Your task to perform on an android device: When is my next appointment? Image 0: 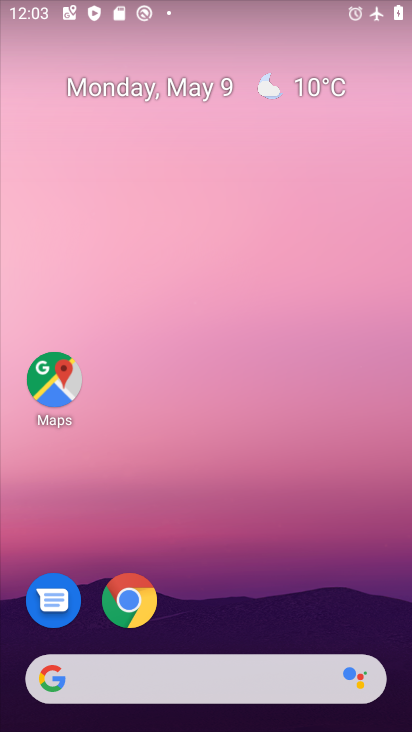
Step 0: drag from (200, 637) to (242, 158)
Your task to perform on an android device: When is my next appointment? Image 1: 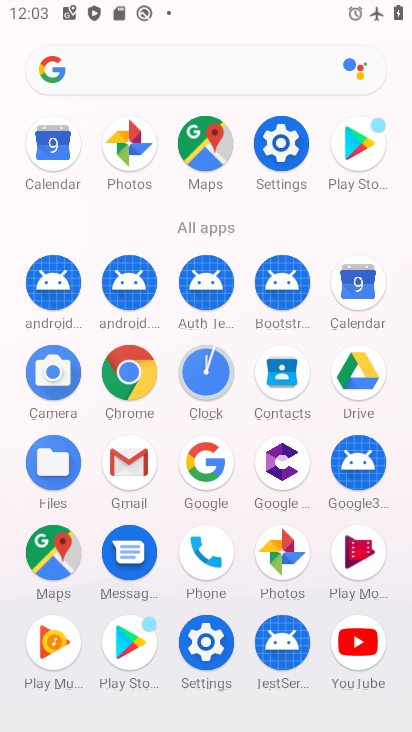
Step 1: click (356, 295)
Your task to perform on an android device: When is my next appointment? Image 2: 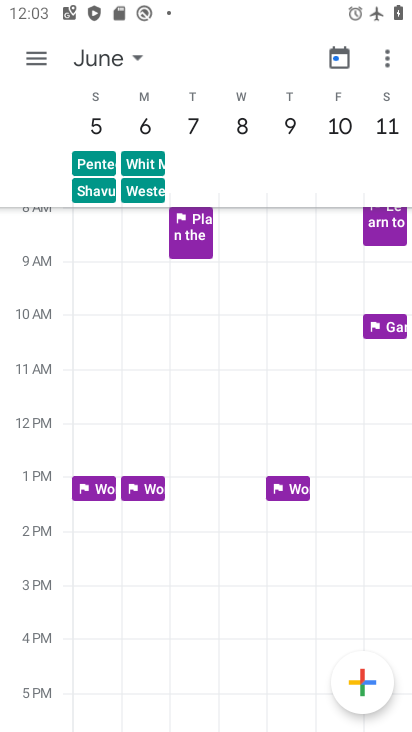
Step 2: click (122, 58)
Your task to perform on an android device: When is my next appointment? Image 3: 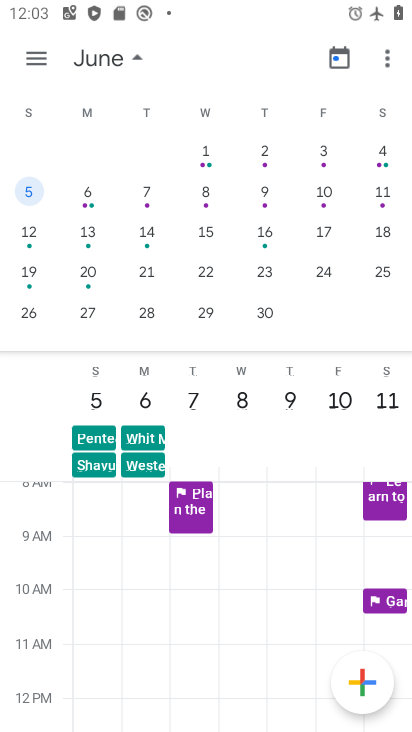
Step 3: task complete